Your task to perform on an android device: delete a single message in the gmail app Image 0: 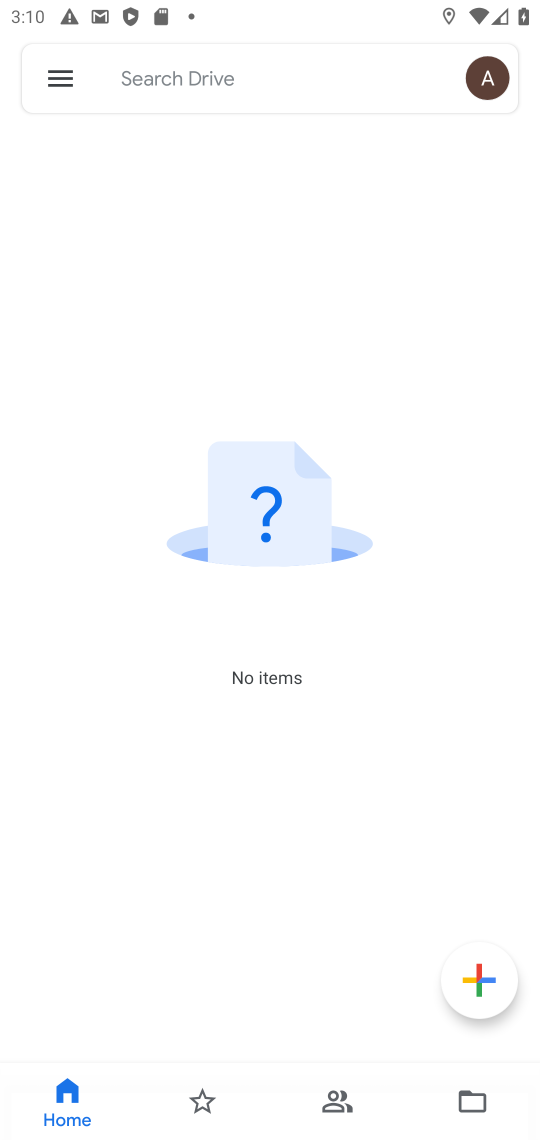
Step 0: press home button
Your task to perform on an android device: delete a single message in the gmail app Image 1: 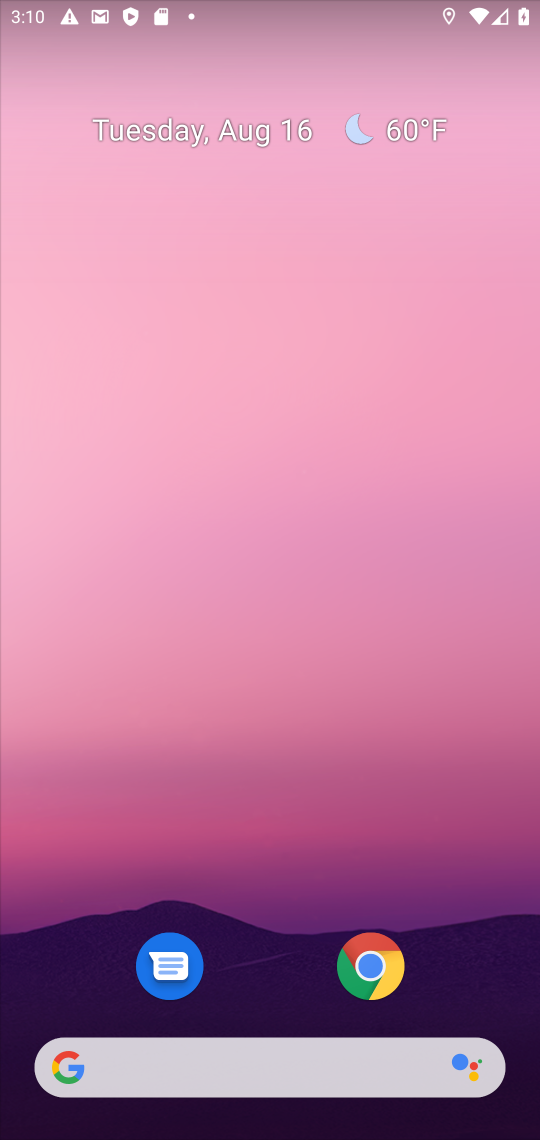
Step 1: drag from (14, 1105) to (302, 485)
Your task to perform on an android device: delete a single message in the gmail app Image 2: 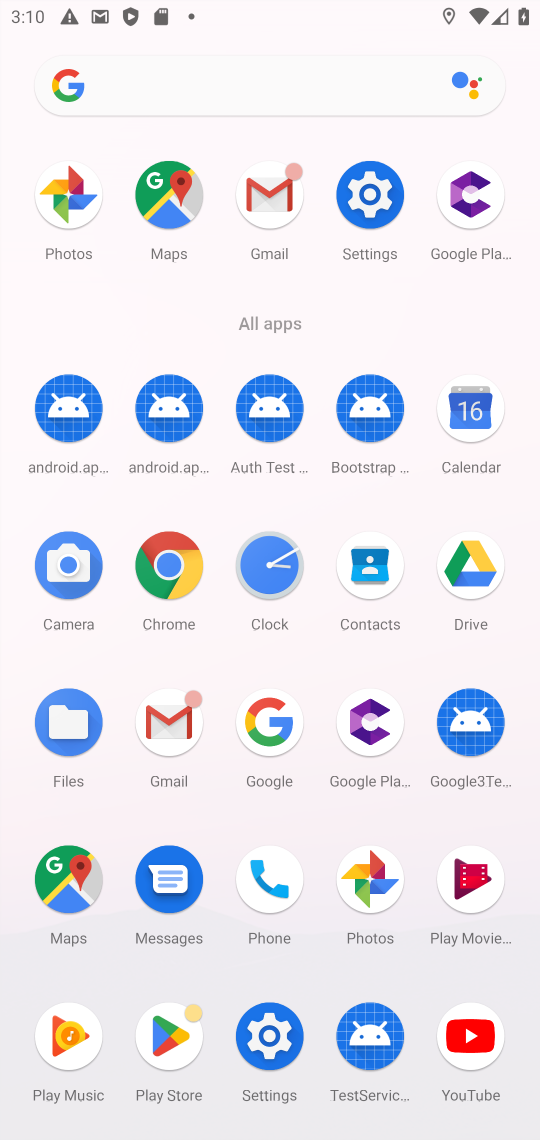
Step 2: click (153, 728)
Your task to perform on an android device: delete a single message in the gmail app Image 3: 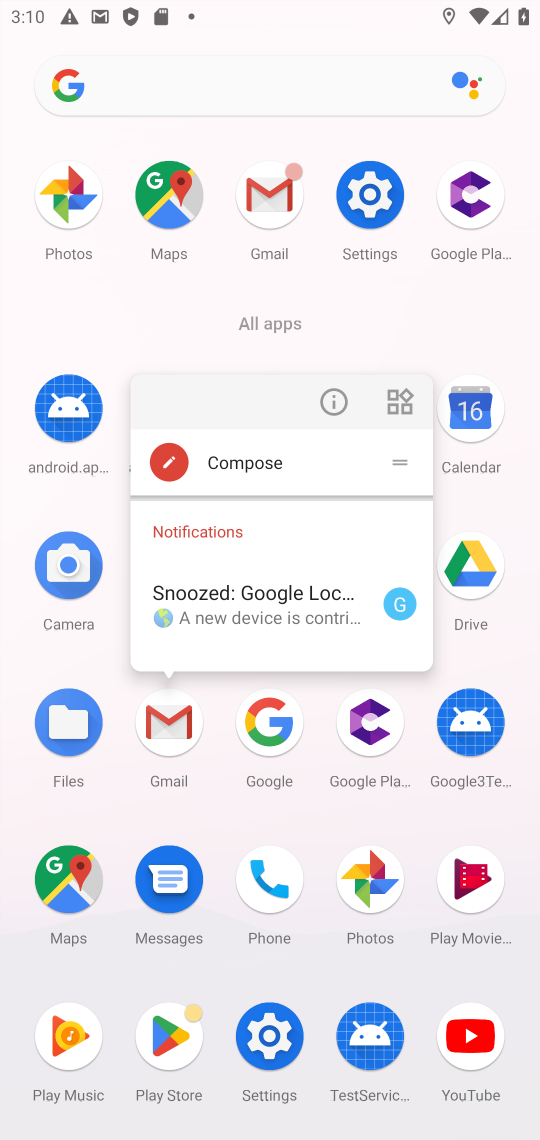
Step 3: click (268, 194)
Your task to perform on an android device: delete a single message in the gmail app Image 4: 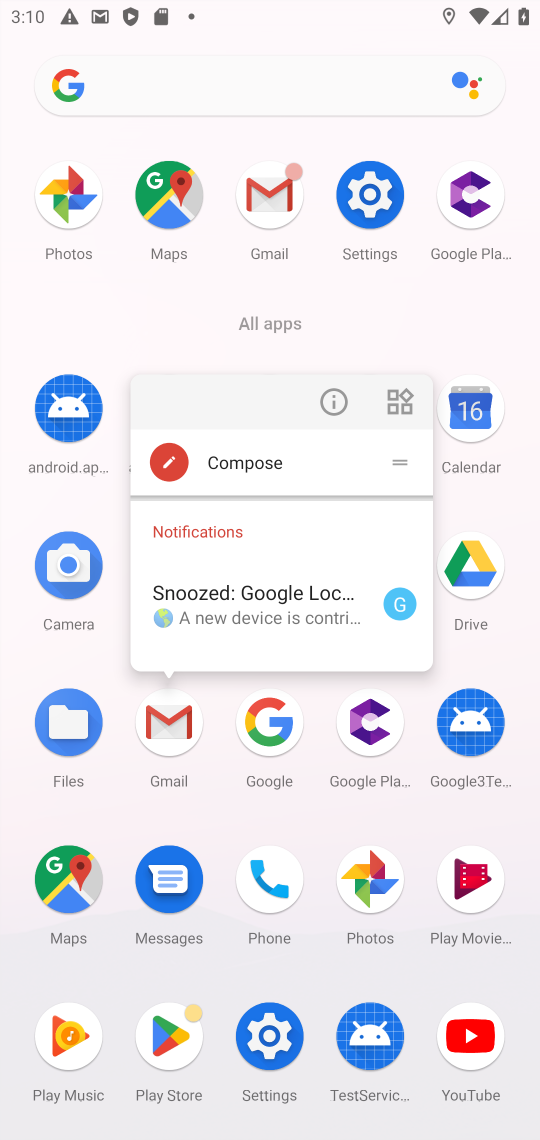
Step 4: click (268, 194)
Your task to perform on an android device: delete a single message in the gmail app Image 5: 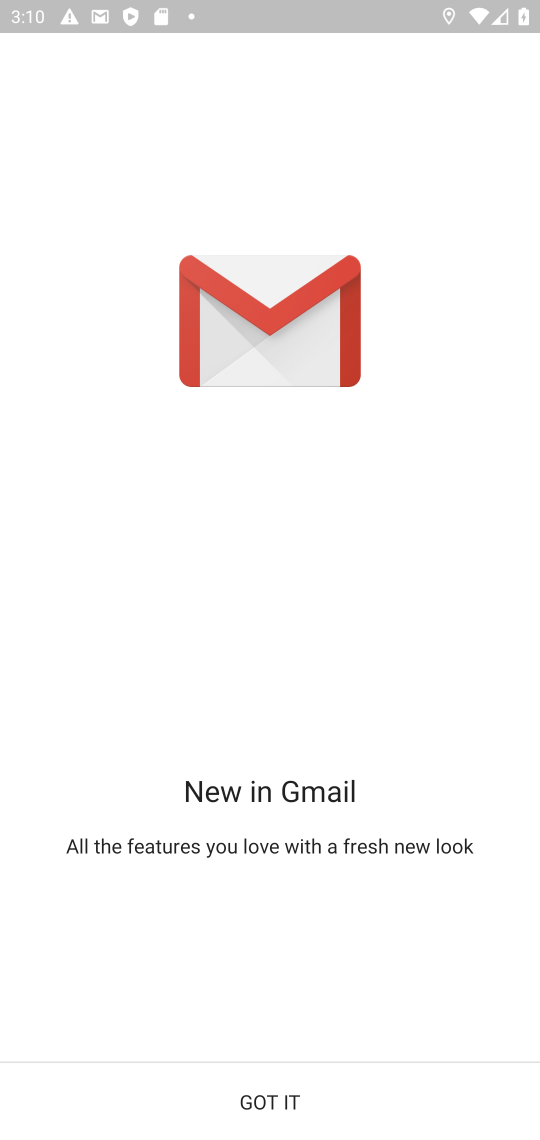
Step 5: click (268, 1104)
Your task to perform on an android device: delete a single message in the gmail app Image 6: 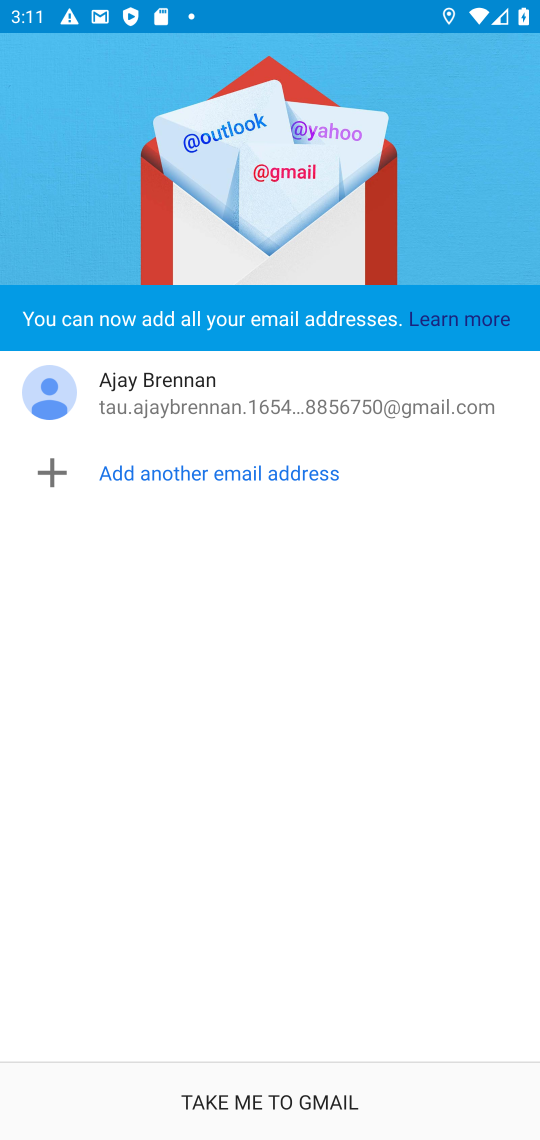
Step 6: click (268, 1104)
Your task to perform on an android device: delete a single message in the gmail app Image 7: 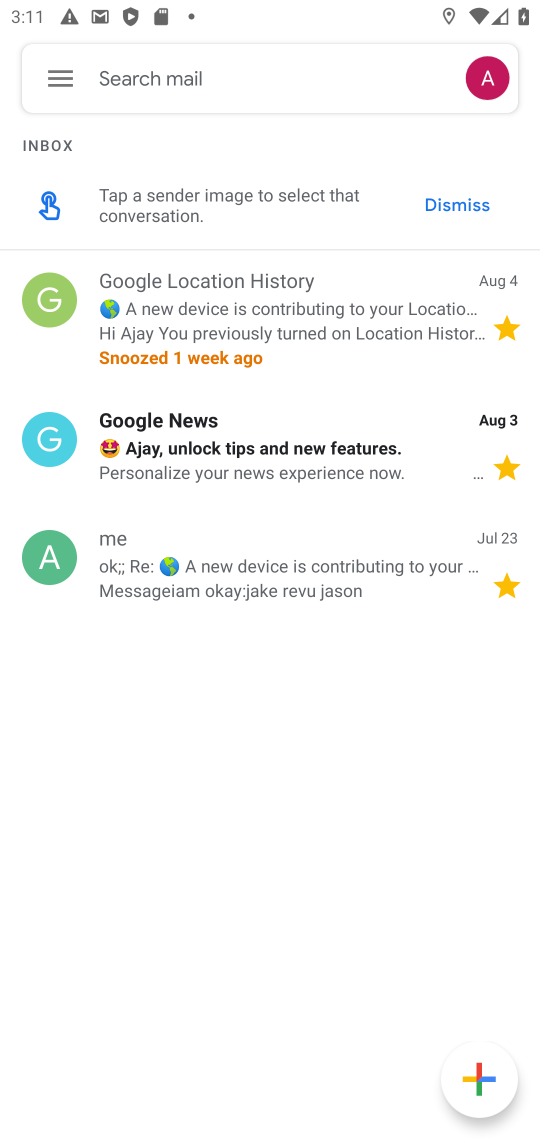
Step 7: click (194, 312)
Your task to perform on an android device: delete a single message in the gmail app Image 8: 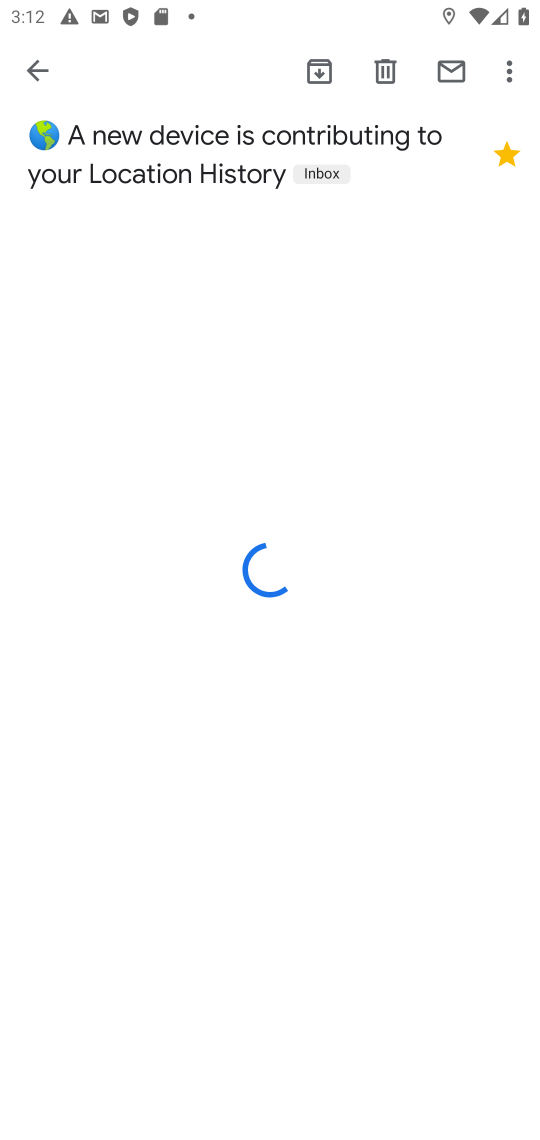
Step 8: click (382, 68)
Your task to perform on an android device: delete a single message in the gmail app Image 9: 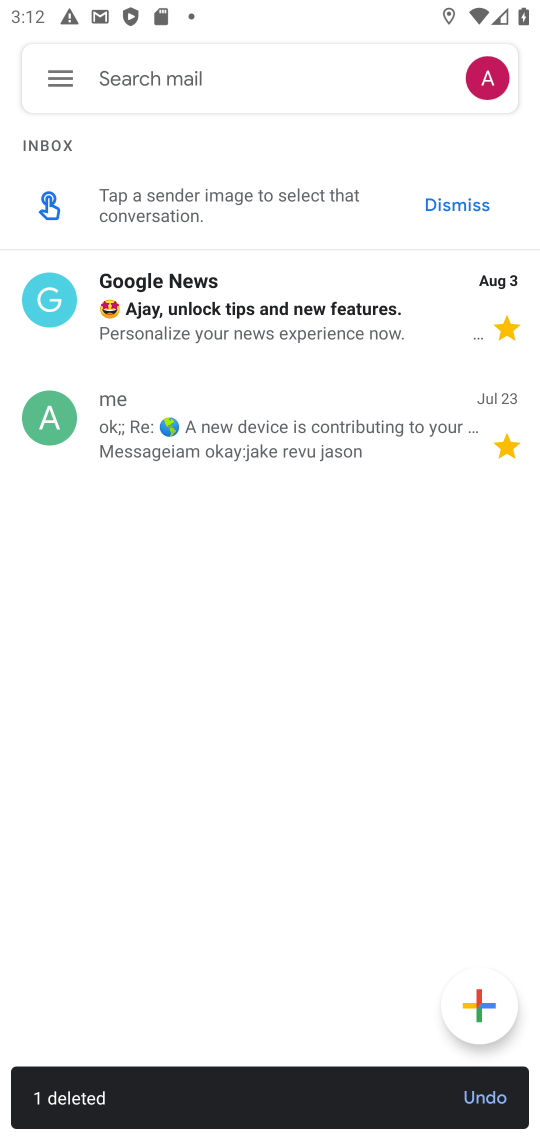
Step 9: task complete